Your task to perform on an android device: Go to Maps Image 0: 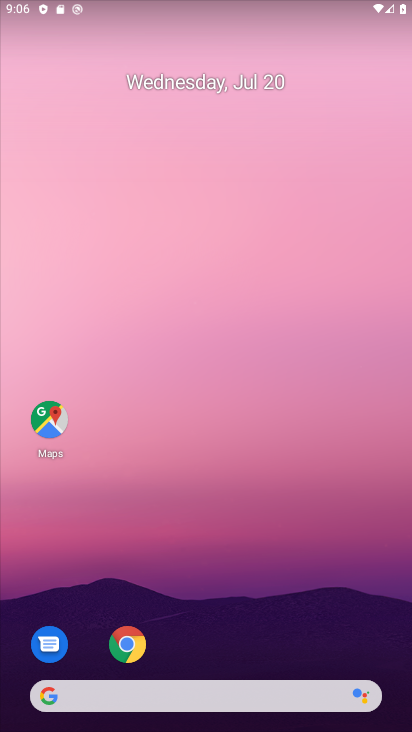
Step 0: click (47, 408)
Your task to perform on an android device: Go to Maps Image 1: 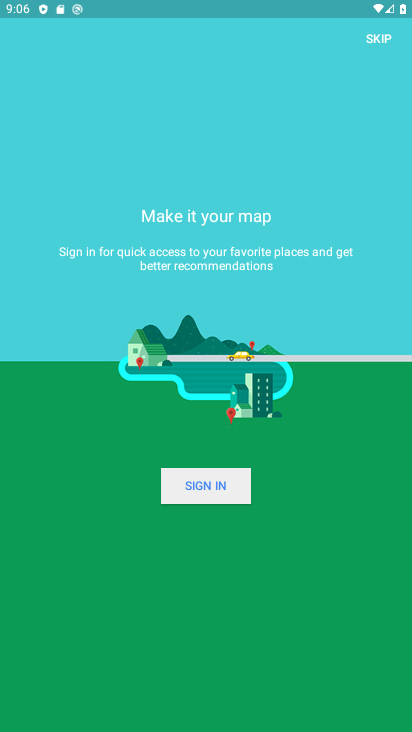
Step 1: click (377, 41)
Your task to perform on an android device: Go to Maps Image 2: 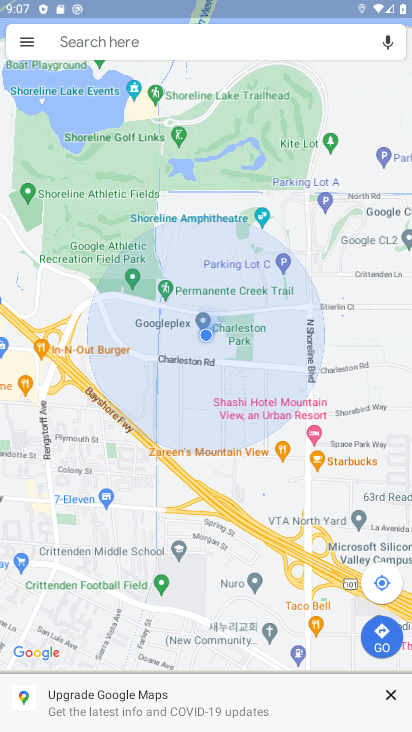
Step 2: task complete